Your task to perform on an android device: Open ESPN.com Image 0: 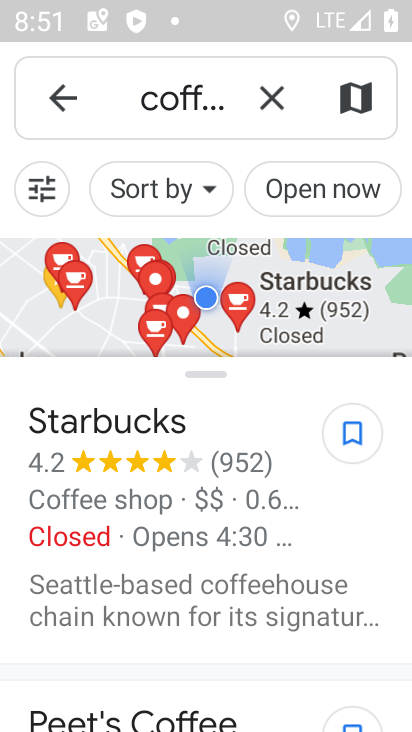
Step 0: press home button
Your task to perform on an android device: Open ESPN.com Image 1: 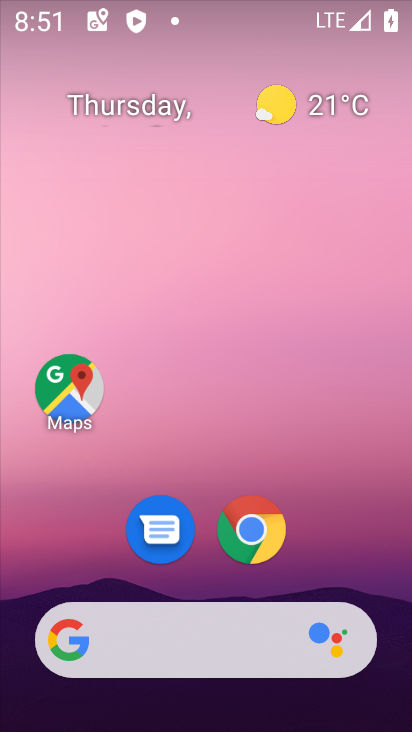
Step 1: click (187, 652)
Your task to perform on an android device: Open ESPN.com Image 2: 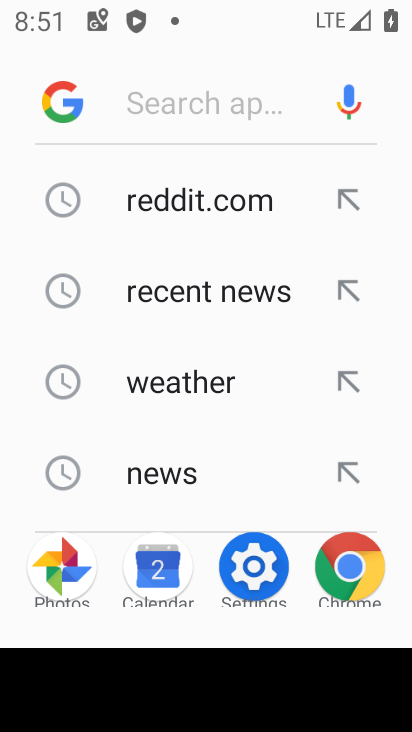
Step 2: type "espn.com"
Your task to perform on an android device: Open ESPN.com Image 3: 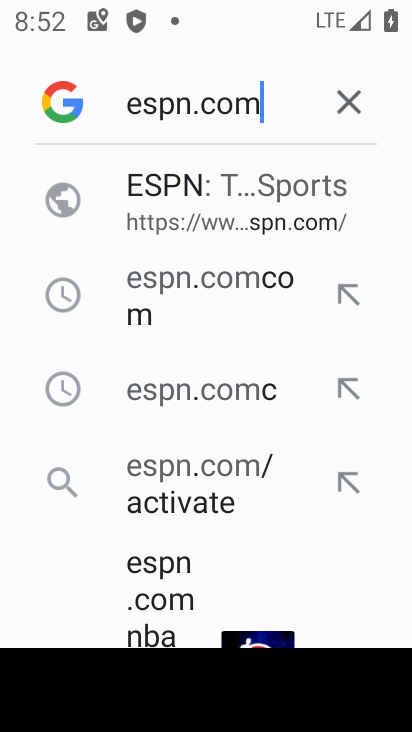
Step 3: click (283, 229)
Your task to perform on an android device: Open ESPN.com Image 4: 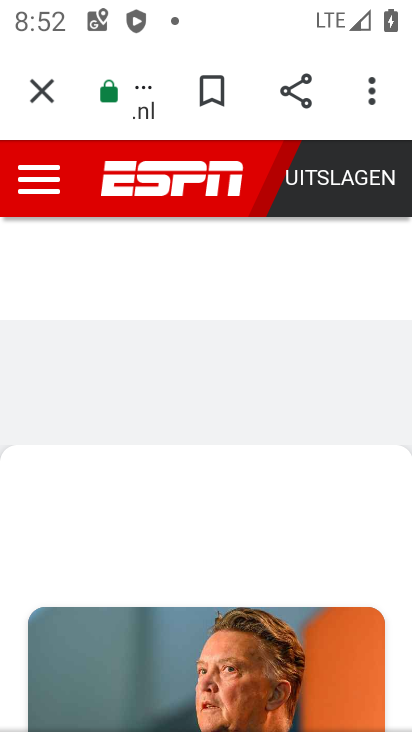
Step 4: task complete